Your task to perform on an android device: turn on airplane mode Image 0: 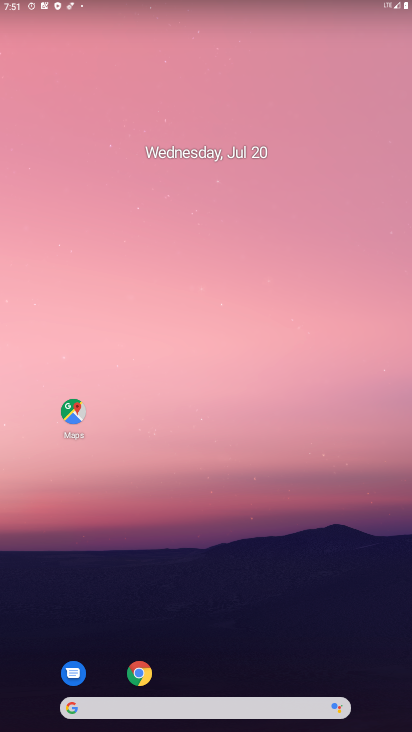
Step 0: drag from (309, 11) to (305, 562)
Your task to perform on an android device: turn on airplane mode Image 1: 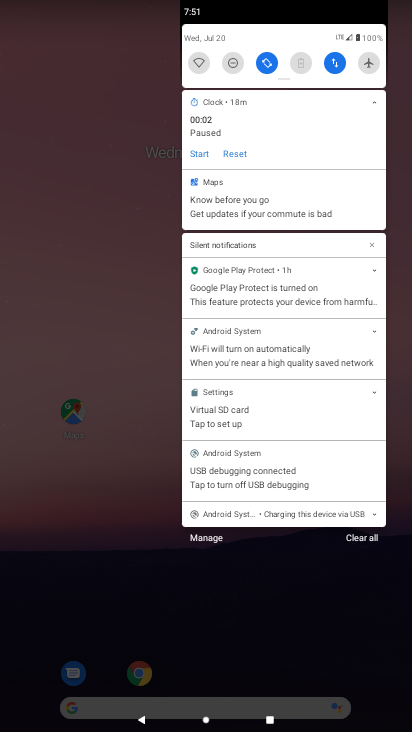
Step 1: click (370, 62)
Your task to perform on an android device: turn on airplane mode Image 2: 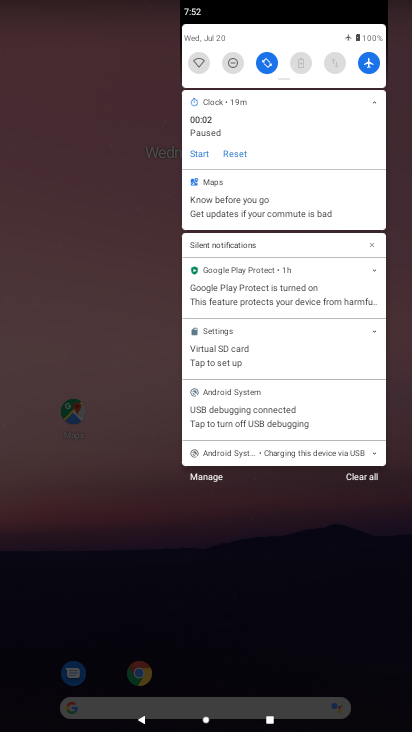
Step 2: task complete